Your task to perform on an android device: Go to Google Image 0: 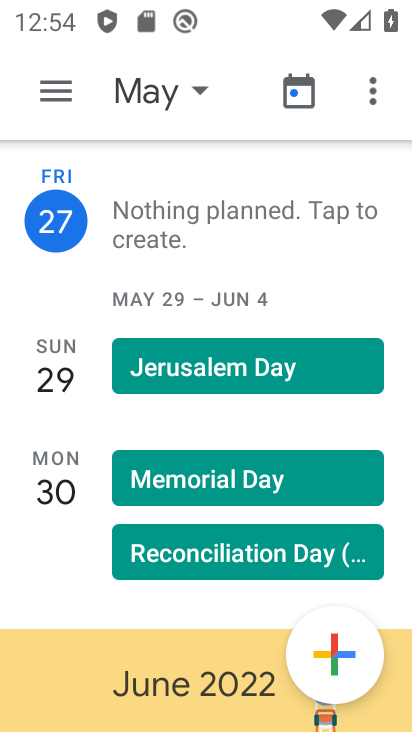
Step 0: press home button
Your task to perform on an android device: Go to Google Image 1: 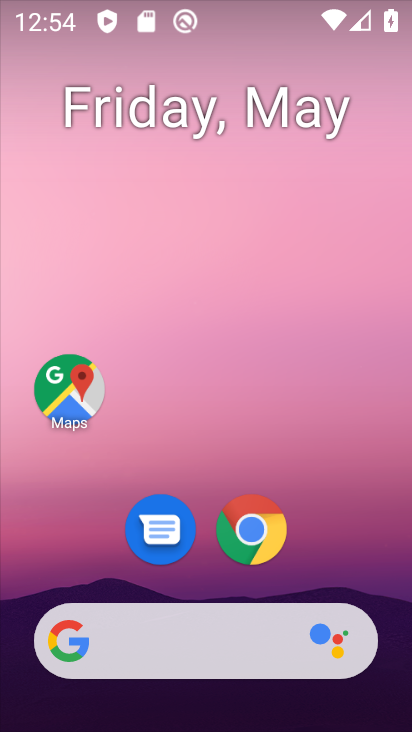
Step 1: drag from (72, 595) to (256, 108)
Your task to perform on an android device: Go to Google Image 2: 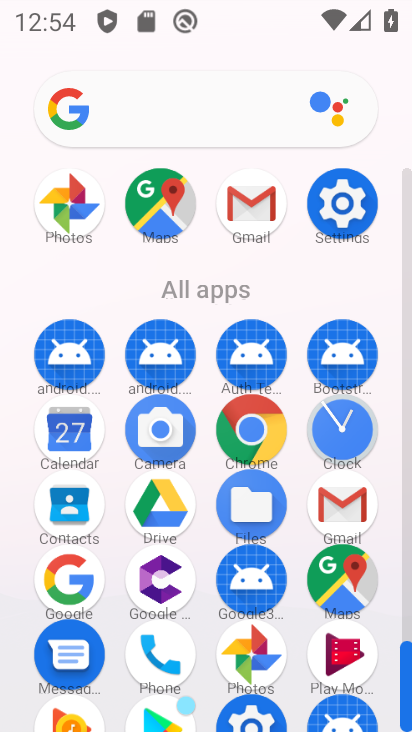
Step 2: click (84, 604)
Your task to perform on an android device: Go to Google Image 3: 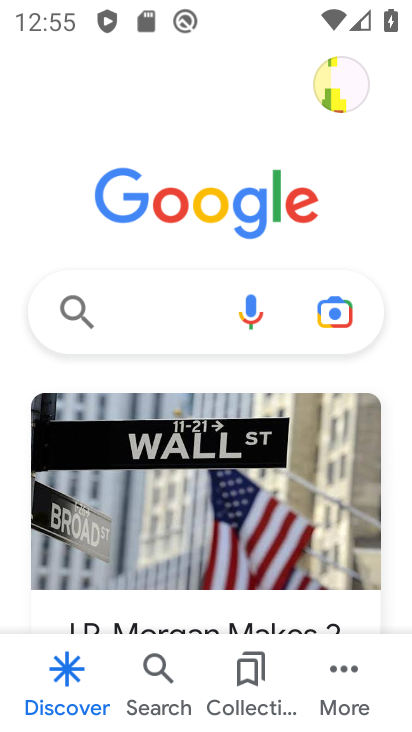
Step 3: task complete